Your task to perform on an android device: turn smart compose on in the gmail app Image 0: 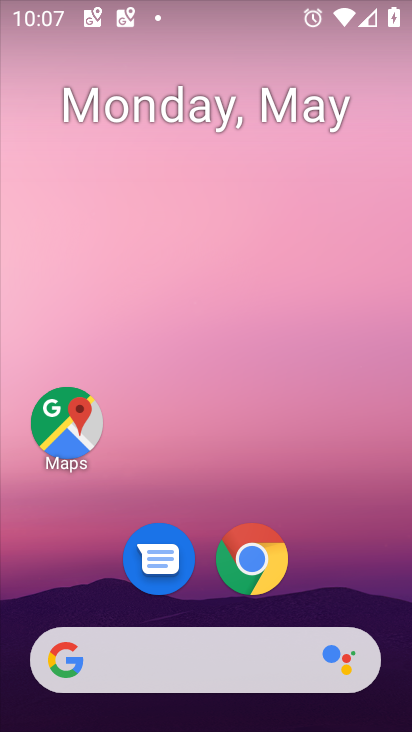
Step 0: drag from (388, 650) to (333, 56)
Your task to perform on an android device: turn smart compose on in the gmail app Image 1: 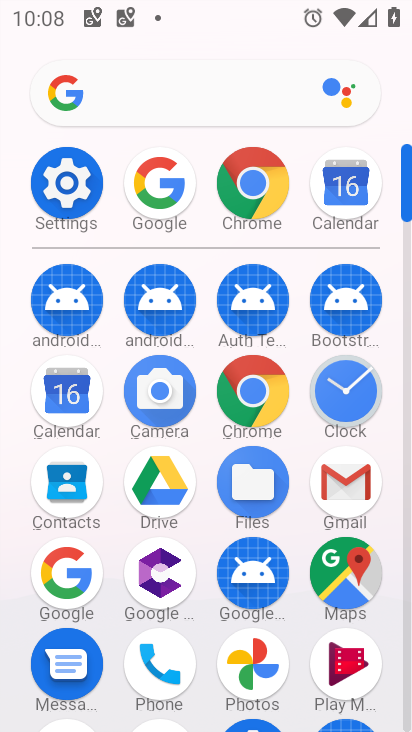
Step 1: click (354, 500)
Your task to perform on an android device: turn smart compose on in the gmail app Image 2: 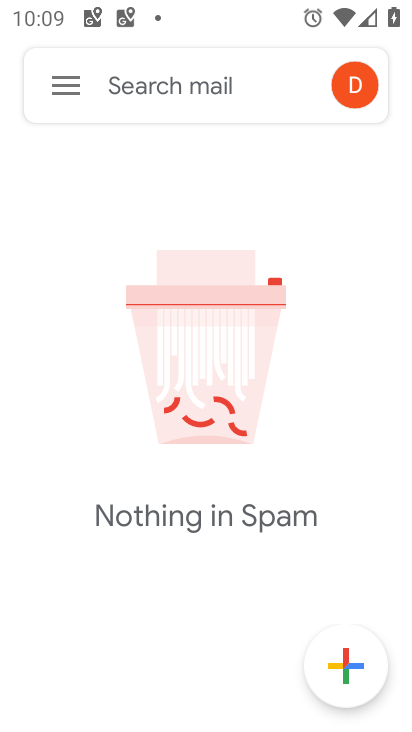
Step 2: click (75, 96)
Your task to perform on an android device: turn smart compose on in the gmail app Image 3: 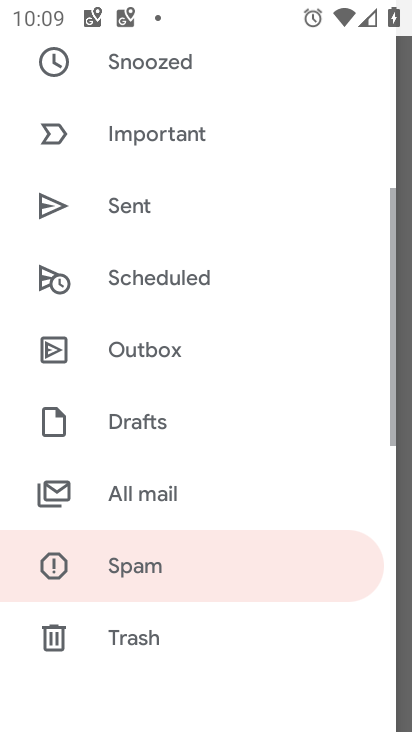
Step 3: drag from (172, 628) to (209, 105)
Your task to perform on an android device: turn smart compose on in the gmail app Image 4: 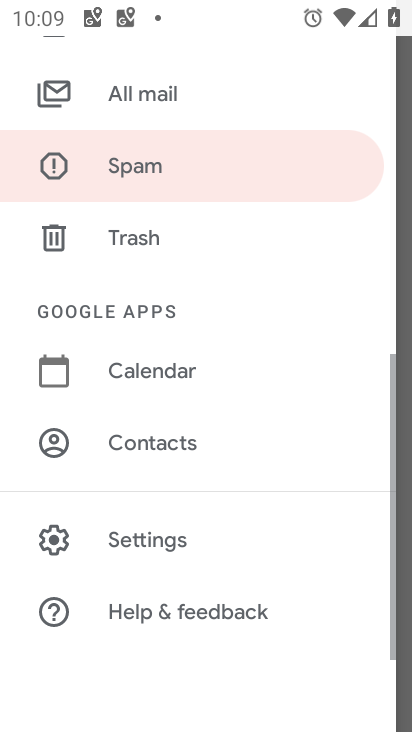
Step 4: click (180, 545)
Your task to perform on an android device: turn smart compose on in the gmail app Image 5: 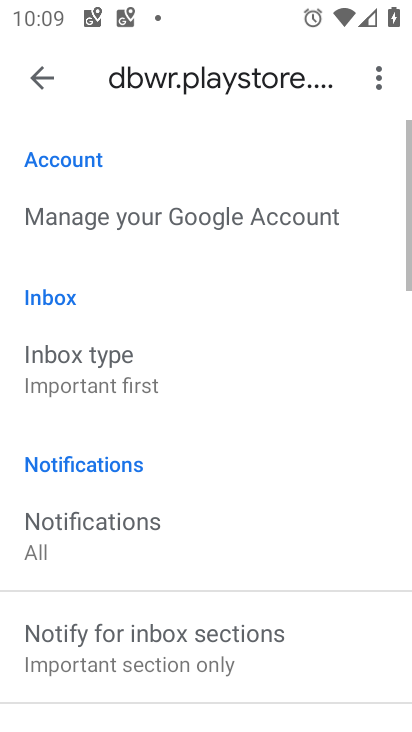
Step 5: task complete